Your task to perform on an android device: Search for pizza restaurants on Maps Image 0: 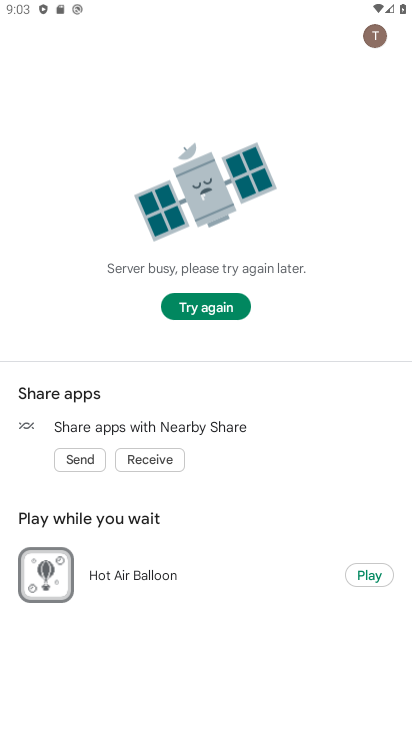
Step 0: press home button
Your task to perform on an android device: Search for pizza restaurants on Maps Image 1: 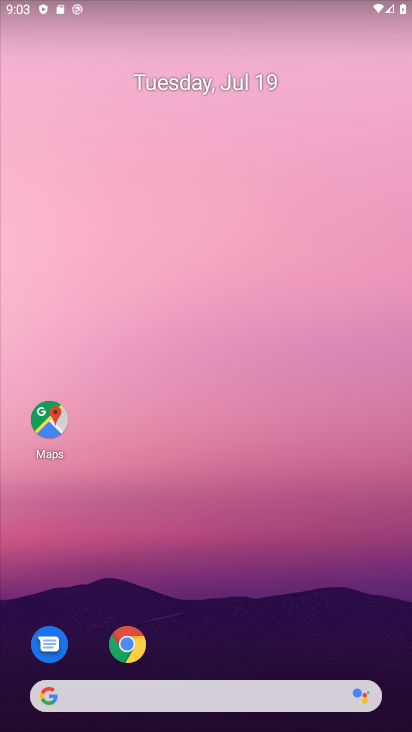
Step 1: click (59, 408)
Your task to perform on an android device: Search for pizza restaurants on Maps Image 2: 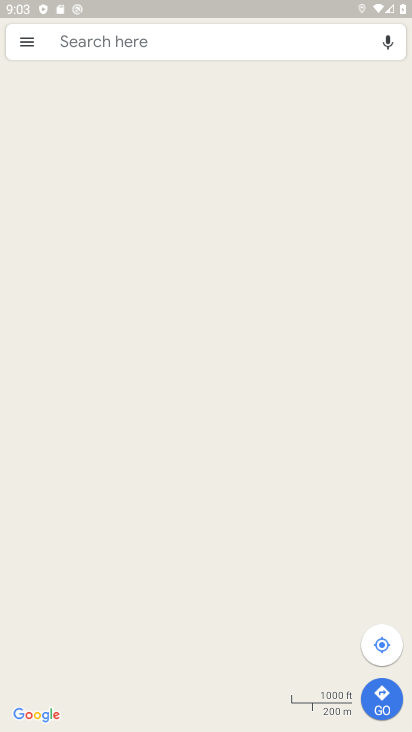
Step 2: click (215, 54)
Your task to perform on an android device: Search for pizza restaurants on Maps Image 3: 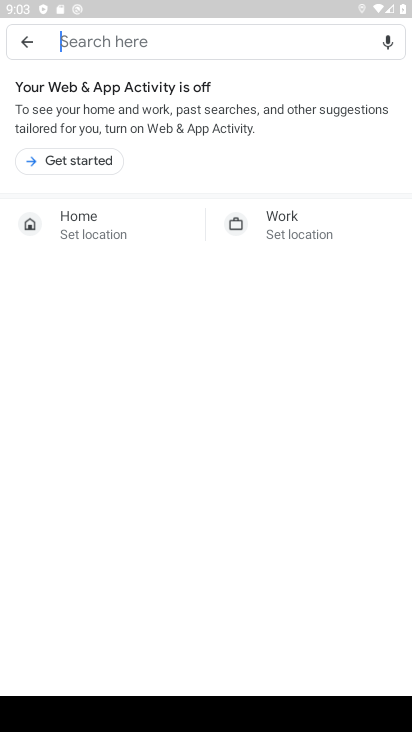
Step 3: click (90, 160)
Your task to perform on an android device: Search for pizza restaurants on Maps Image 4: 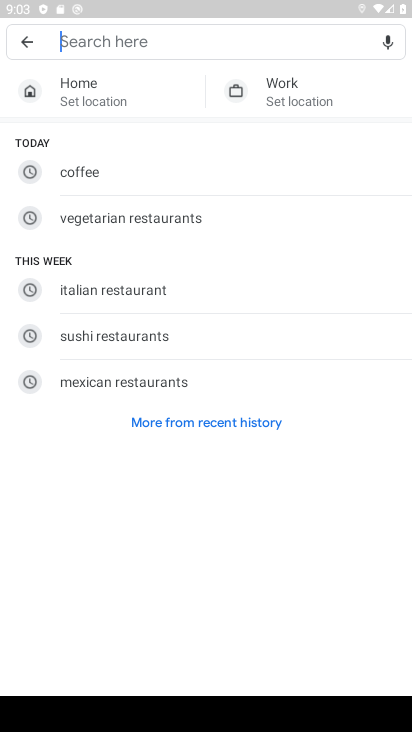
Step 4: type "pizza"
Your task to perform on an android device: Search for pizza restaurants on Maps Image 5: 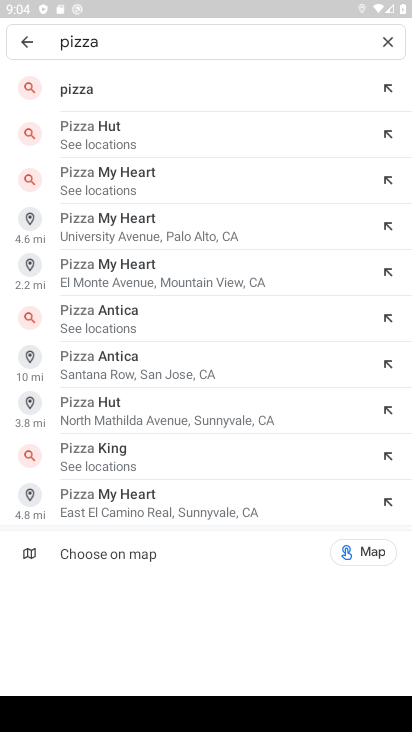
Step 5: click (64, 94)
Your task to perform on an android device: Search for pizza restaurants on Maps Image 6: 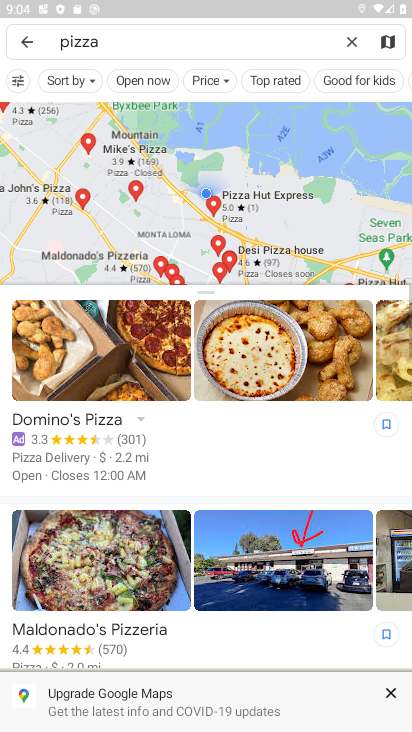
Step 6: task complete